Your task to perform on an android device: What's on my calendar today? Image 0: 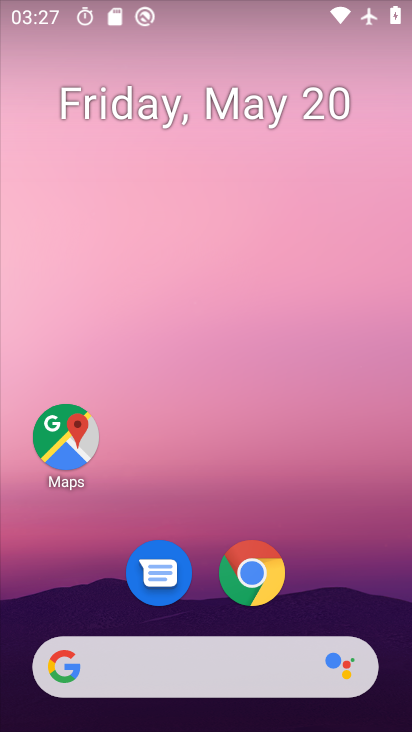
Step 0: drag from (200, 617) to (203, 207)
Your task to perform on an android device: What's on my calendar today? Image 1: 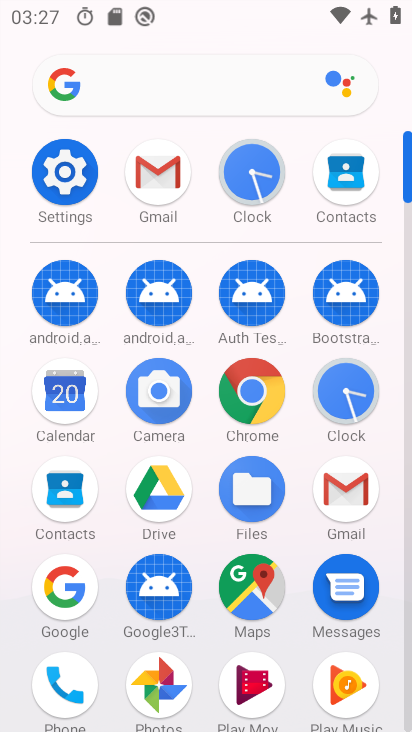
Step 1: click (65, 414)
Your task to perform on an android device: What's on my calendar today? Image 2: 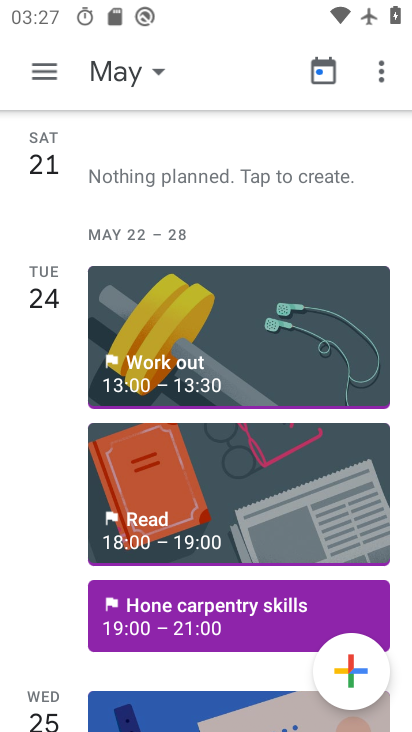
Step 2: click (146, 73)
Your task to perform on an android device: What's on my calendar today? Image 3: 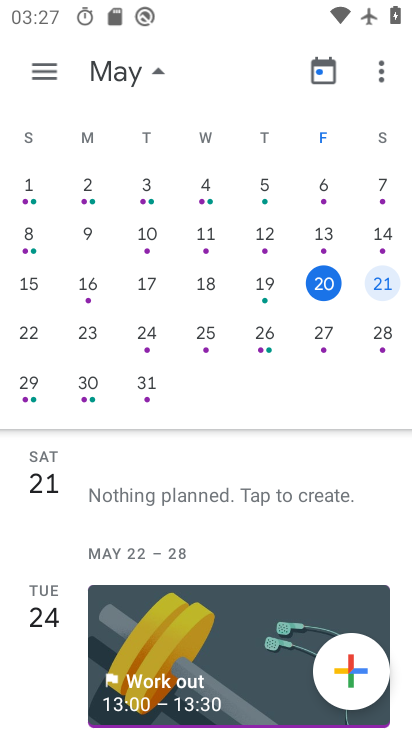
Step 3: click (328, 286)
Your task to perform on an android device: What's on my calendar today? Image 4: 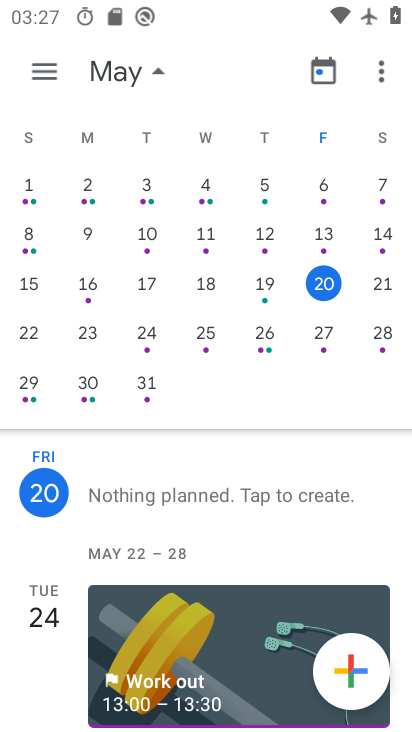
Step 4: task complete